Your task to perform on an android device: open wifi settings Image 0: 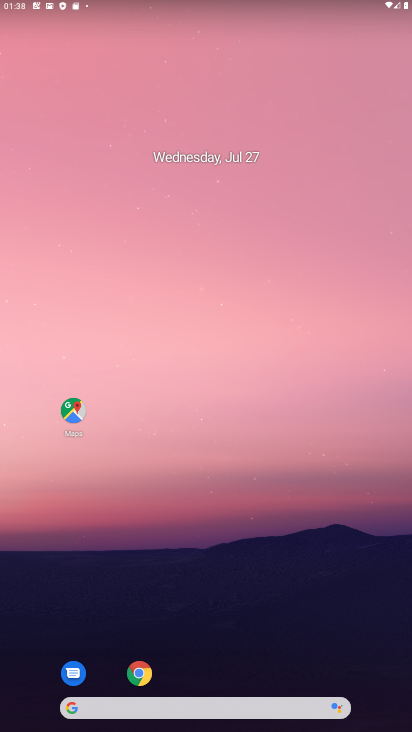
Step 0: drag from (198, 654) to (216, 292)
Your task to perform on an android device: open wifi settings Image 1: 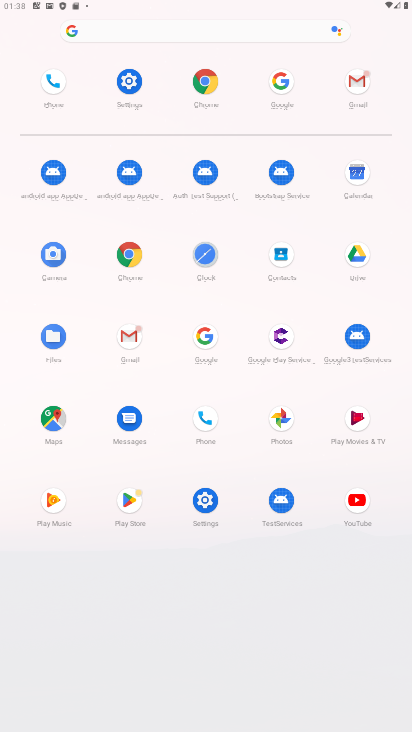
Step 1: click (127, 75)
Your task to perform on an android device: open wifi settings Image 2: 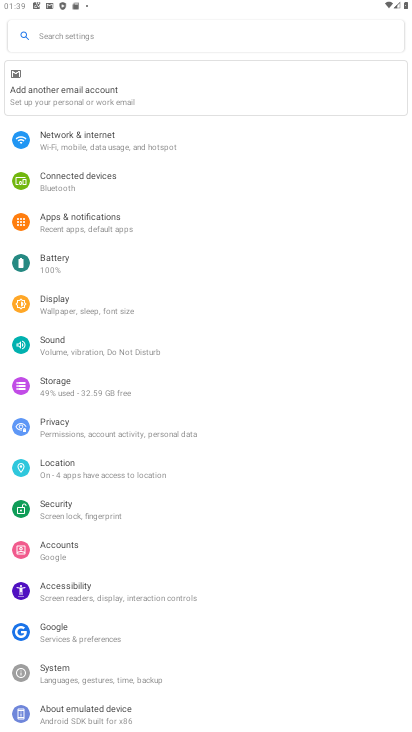
Step 2: click (117, 136)
Your task to perform on an android device: open wifi settings Image 3: 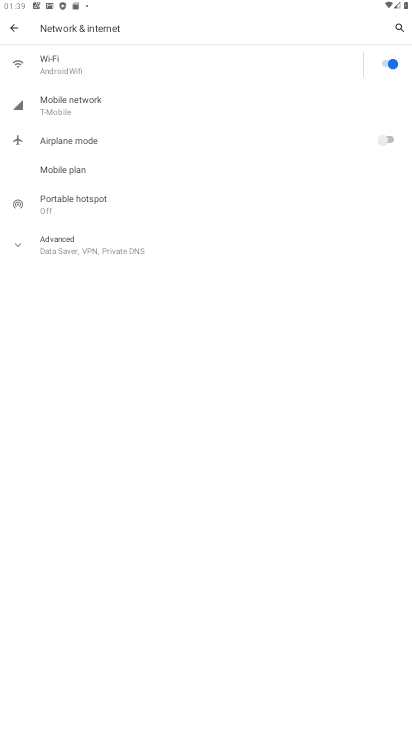
Step 3: click (89, 72)
Your task to perform on an android device: open wifi settings Image 4: 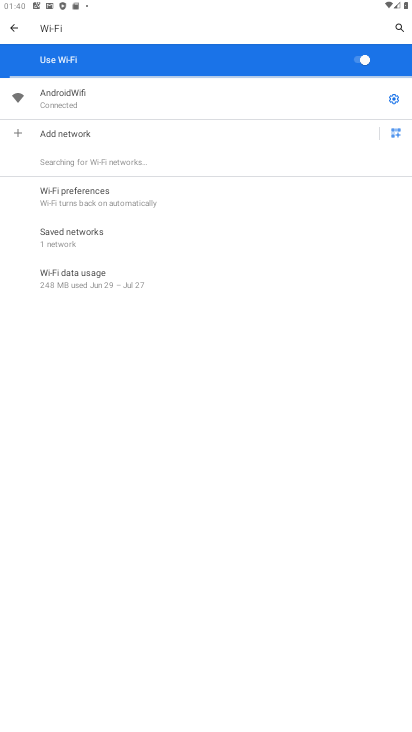
Step 4: task complete